Your task to perform on an android device: turn off picture-in-picture Image 0: 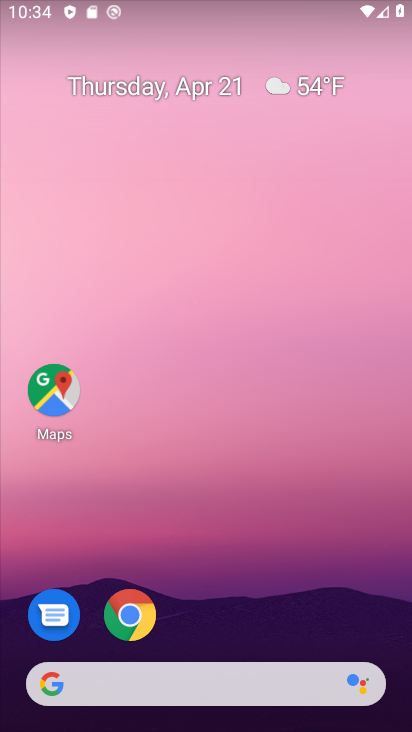
Step 0: click (130, 623)
Your task to perform on an android device: turn off picture-in-picture Image 1: 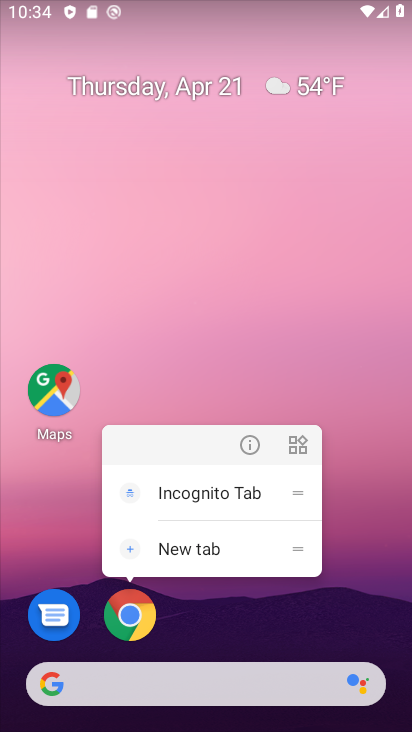
Step 1: click (255, 448)
Your task to perform on an android device: turn off picture-in-picture Image 2: 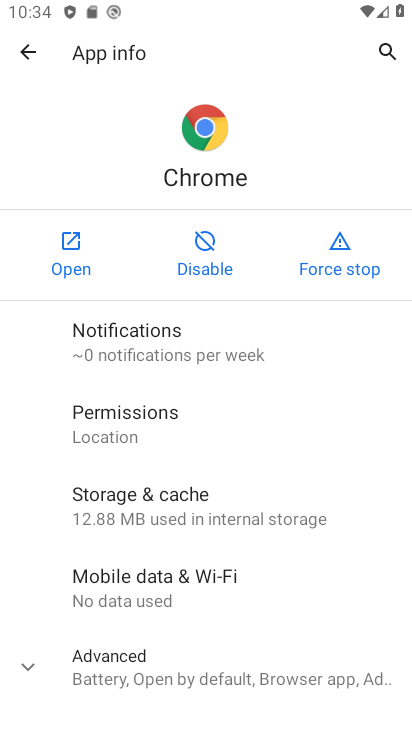
Step 2: click (184, 665)
Your task to perform on an android device: turn off picture-in-picture Image 3: 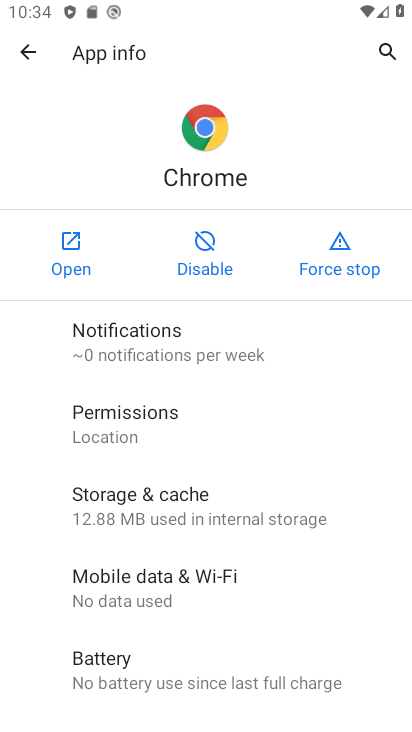
Step 3: drag from (215, 628) to (311, 308)
Your task to perform on an android device: turn off picture-in-picture Image 4: 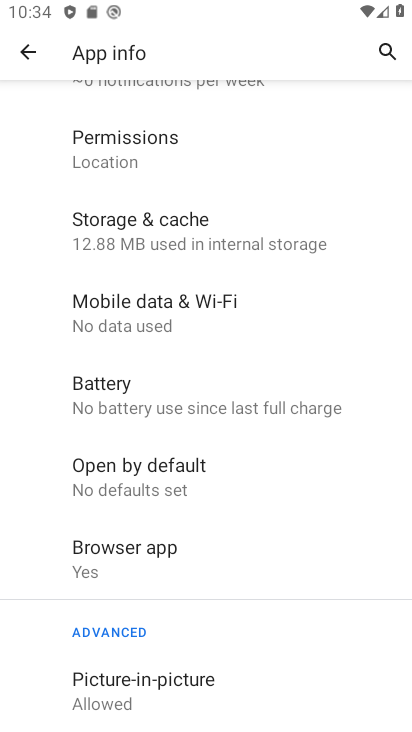
Step 4: click (203, 703)
Your task to perform on an android device: turn off picture-in-picture Image 5: 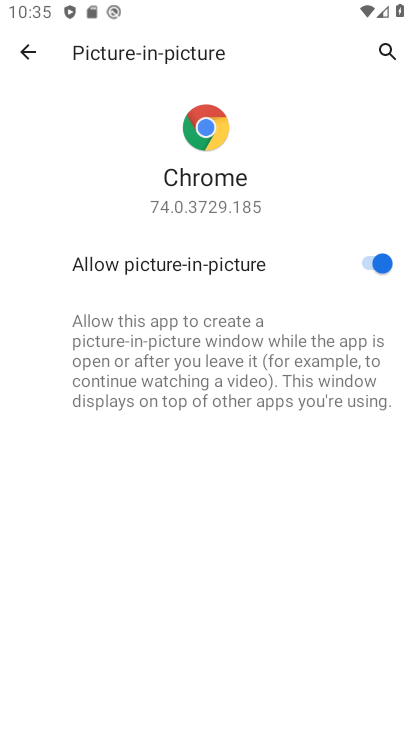
Step 5: click (372, 267)
Your task to perform on an android device: turn off picture-in-picture Image 6: 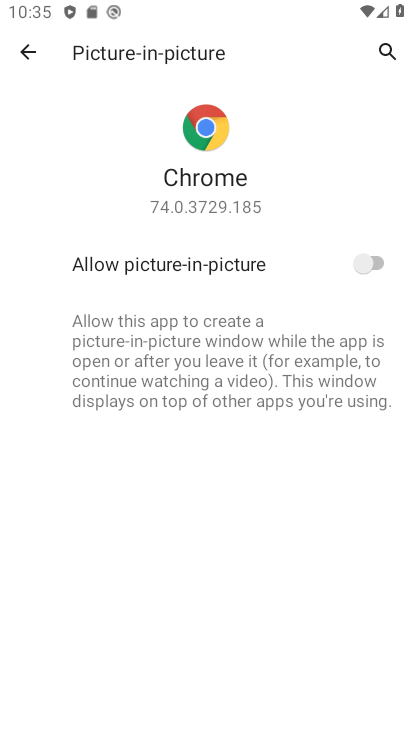
Step 6: task complete